Your task to perform on an android device: turn off data saver in the chrome app Image 0: 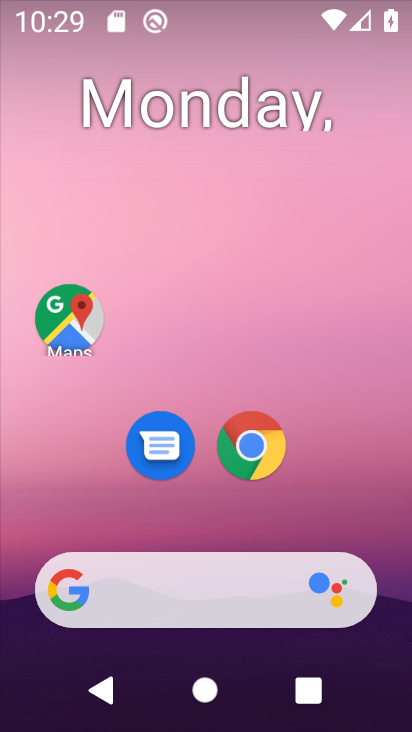
Step 0: click (264, 457)
Your task to perform on an android device: turn off data saver in the chrome app Image 1: 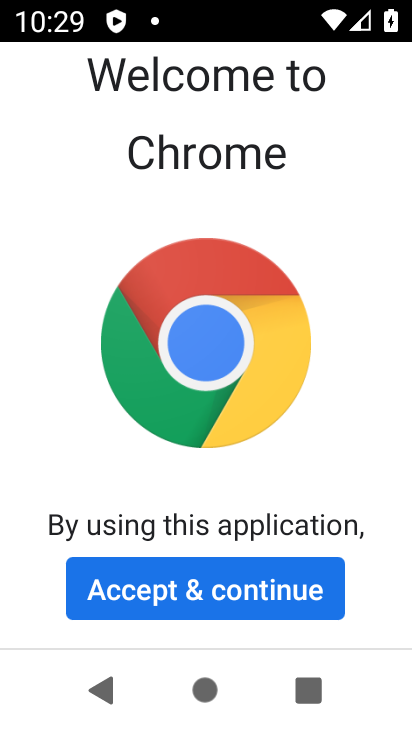
Step 1: click (192, 559)
Your task to perform on an android device: turn off data saver in the chrome app Image 2: 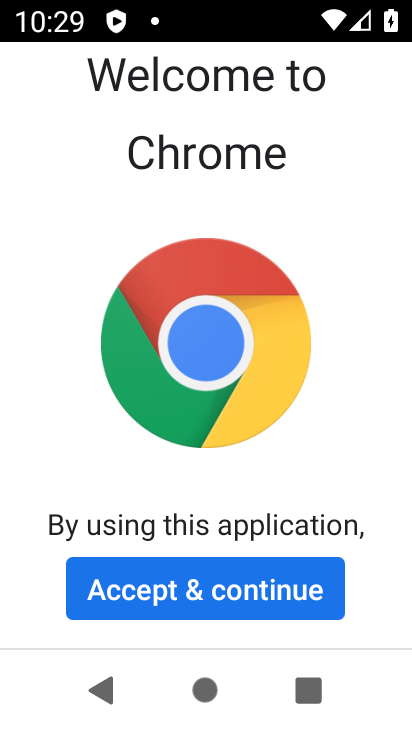
Step 2: click (188, 573)
Your task to perform on an android device: turn off data saver in the chrome app Image 3: 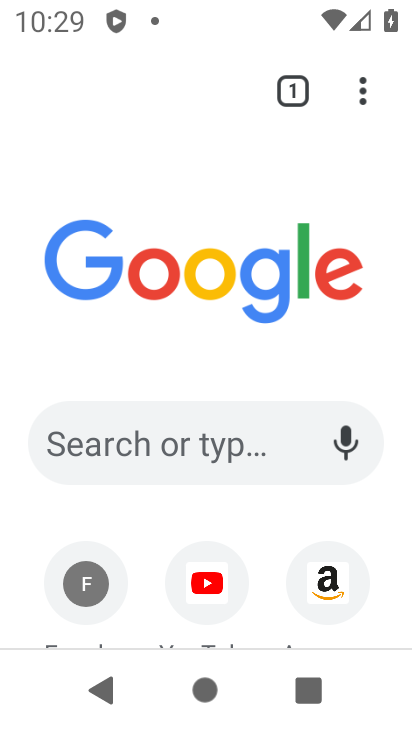
Step 3: click (364, 95)
Your task to perform on an android device: turn off data saver in the chrome app Image 4: 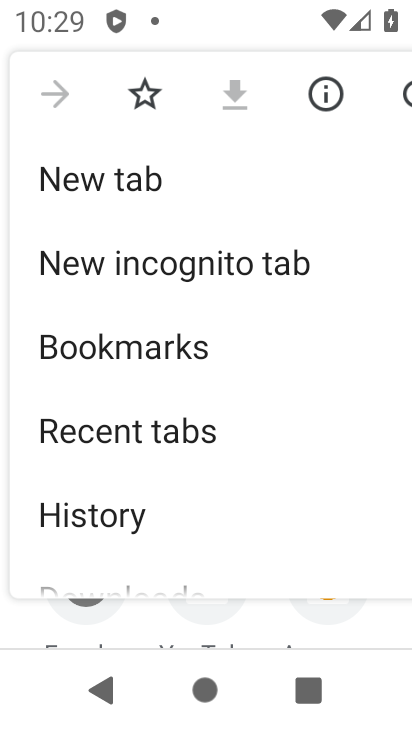
Step 4: drag from (205, 542) to (206, 153)
Your task to perform on an android device: turn off data saver in the chrome app Image 5: 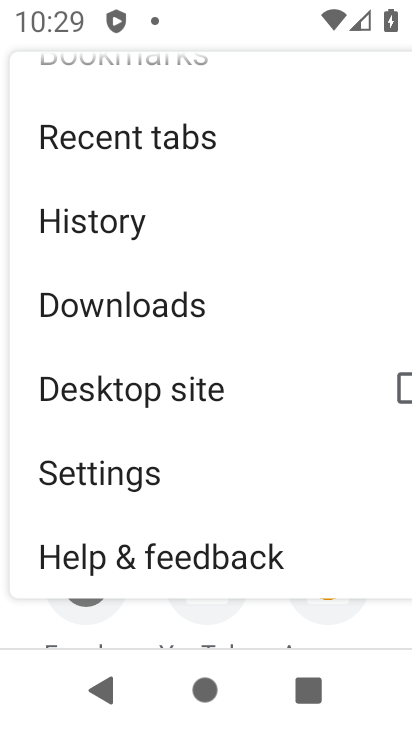
Step 5: click (123, 478)
Your task to perform on an android device: turn off data saver in the chrome app Image 6: 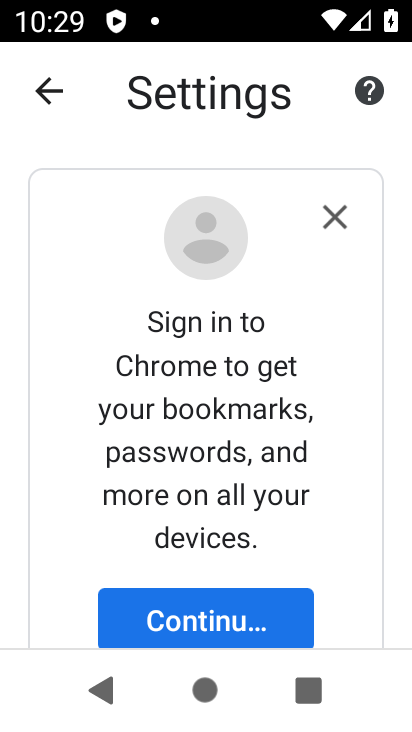
Step 6: drag from (303, 574) to (275, 181)
Your task to perform on an android device: turn off data saver in the chrome app Image 7: 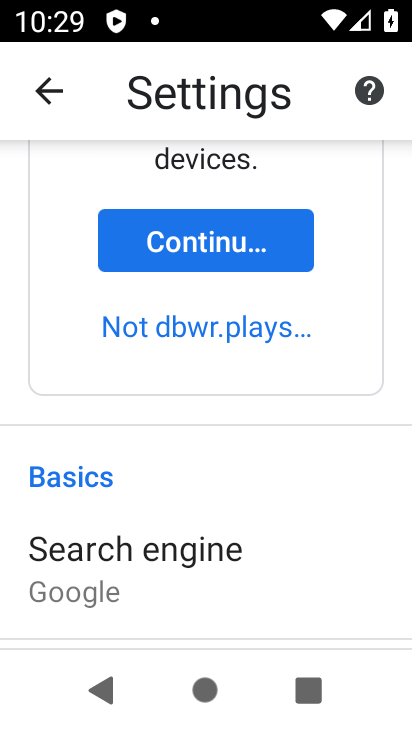
Step 7: drag from (172, 617) to (171, 293)
Your task to perform on an android device: turn off data saver in the chrome app Image 8: 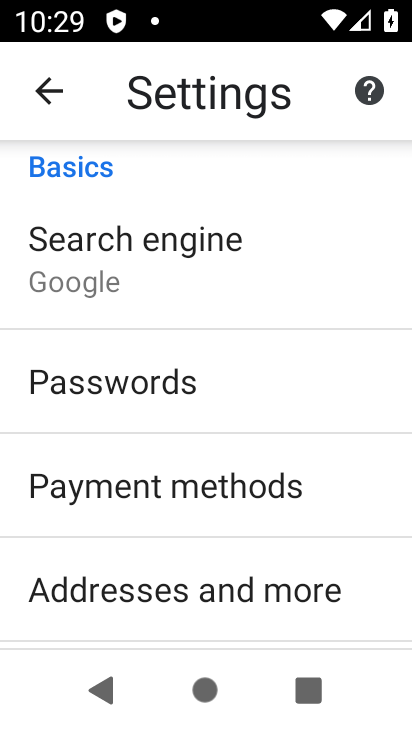
Step 8: drag from (227, 608) to (238, 174)
Your task to perform on an android device: turn off data saver in the chrome app Image 9: 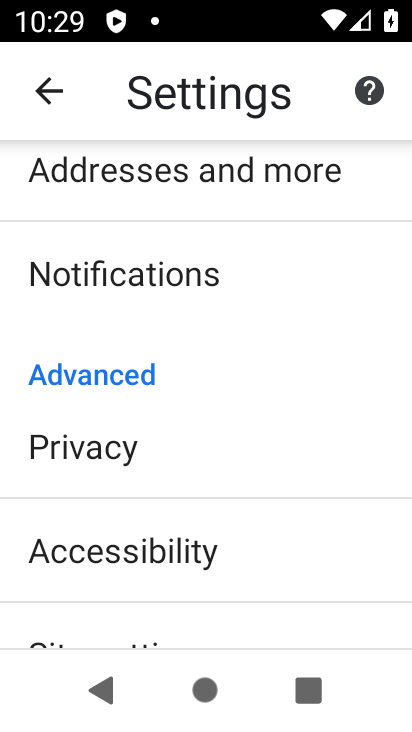
Step 9: drag from (197, 607) to (213, 230)
Your task to perform on an android device: turn off data saver in the chrome app Image 10: 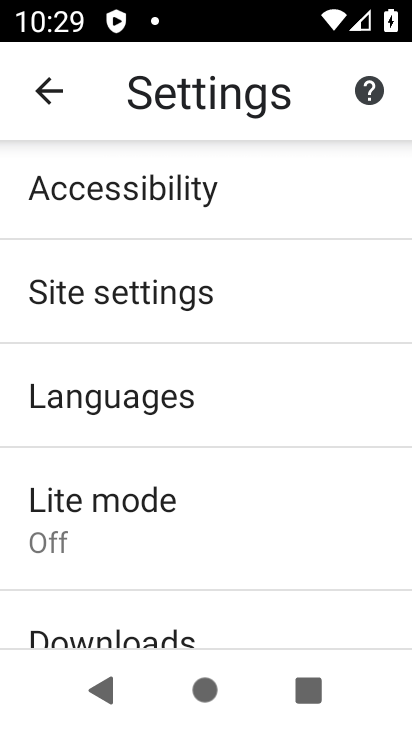
Step 10: click (133, 509)
Your task to perform on an android device: turn off data saver in the chrome app Image 11: 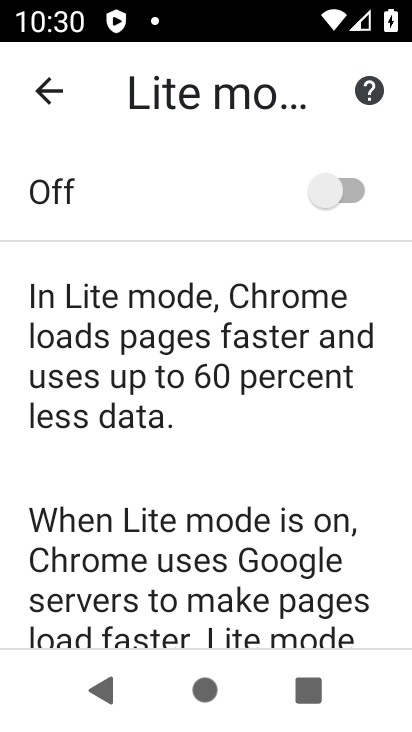
Step 11: task complete